Your task to perform on an android device: open the mobile data screen to see how much data has been used Image 0: 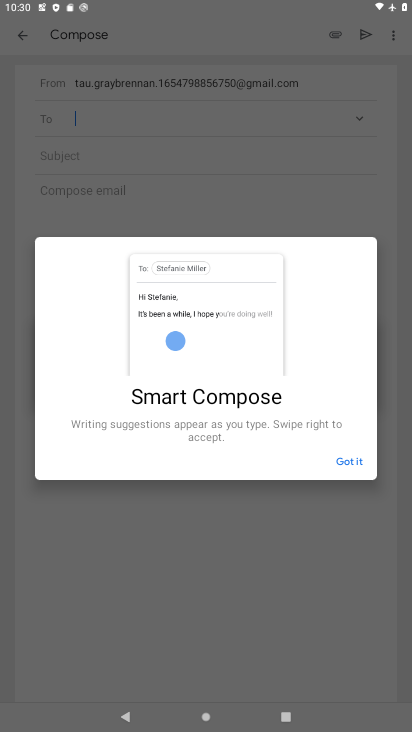
Step 0: click (350, 473)
Your task to perform on an android device: open the mobile data screen to see how much data has been used Image 1: 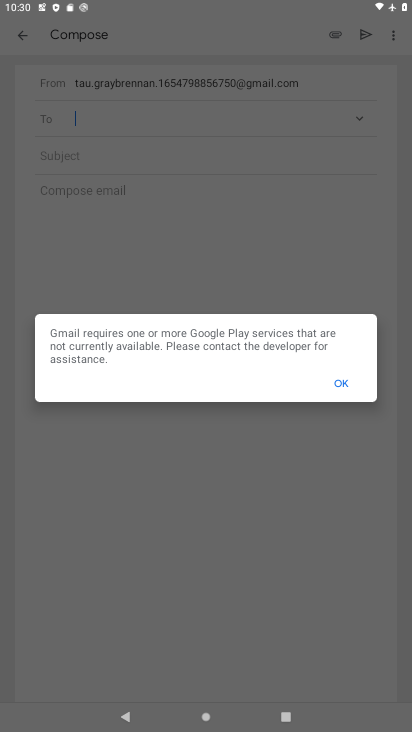
Step 1: task complete